Your task to perform on an android device: Set the phone to "Do not disturb". Image 0: 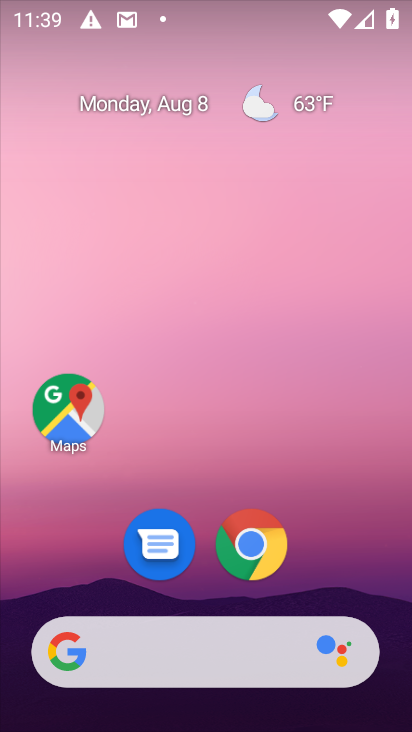
Step 0: drag from (177, 648) to (237, 124)
Your task to perform on an android device: Set the phone to "Do not disturb". Image 1: 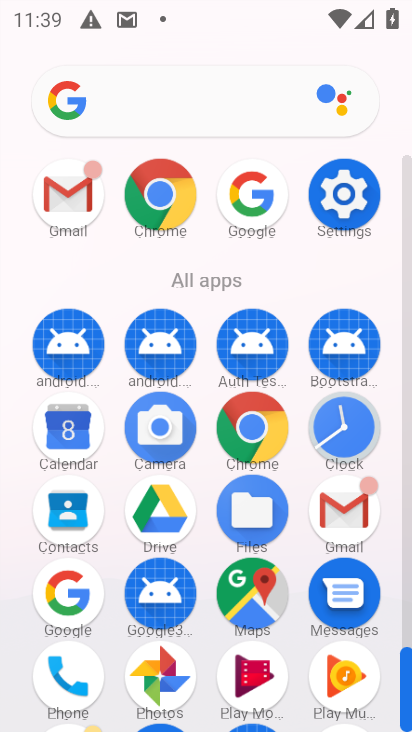
Step 1: click (344, 195)
Your task to perform on an android device: Set the phone to "Do not disturb". Image 2: 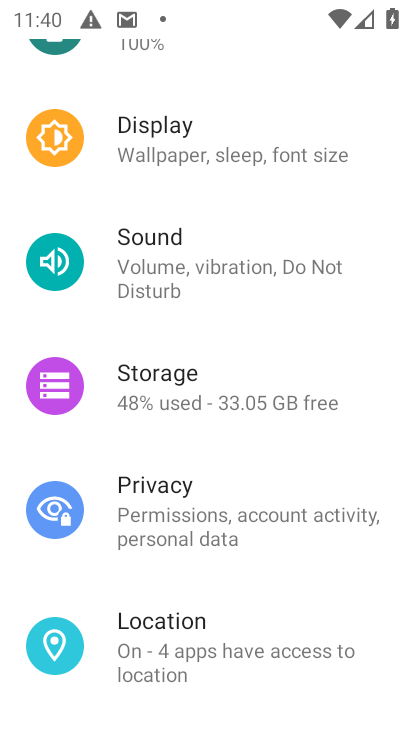
Step 2: click (252, 259)
Your task to perform on an android device: Set the phone to "Do not disturb". Image 3: 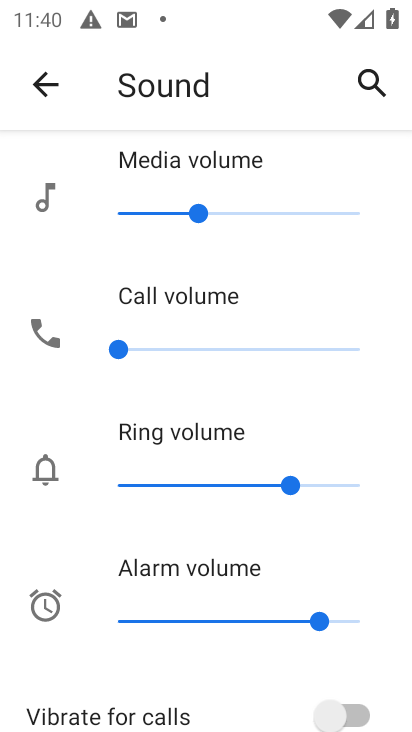
Step 3: drag from (212, 514) to (304, 348)
Your task to perform on an android device: Set the phone to "Do not disturb". Image 4: 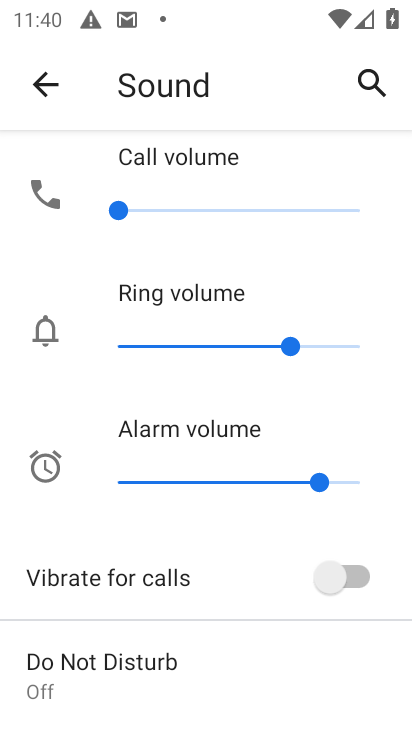
Step 4: click (167, 664)
Your task to perform on an android device: Set the phone to "Do not disturb". Image 5: 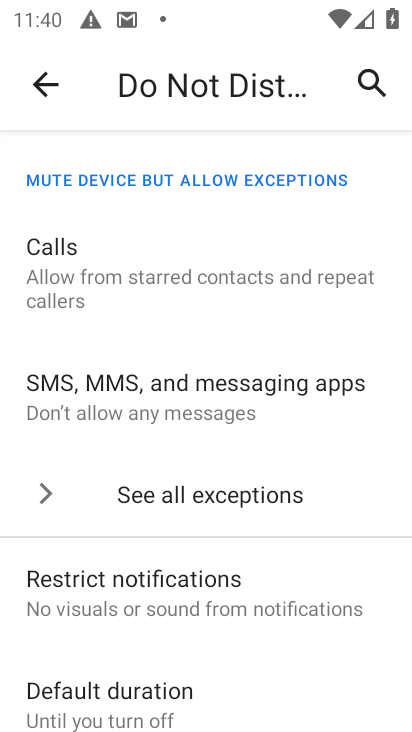
Step 5: drag from (227, 623) to (320, 481)
Your task to perform on an android device: Set the phone to "Do not disturb". Image 6: 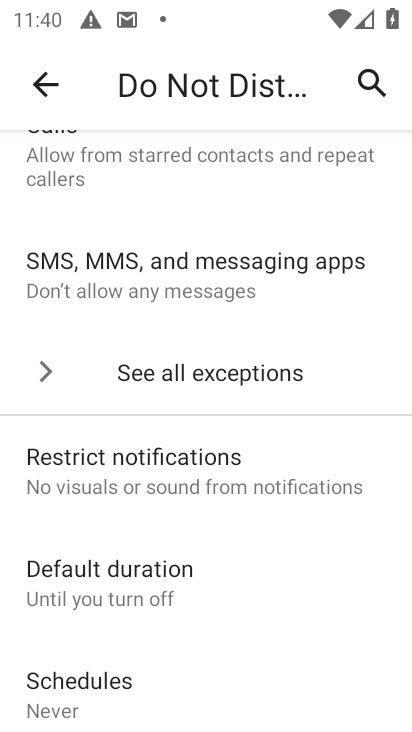
Step 6: drag from (236, 638) to (360, 473)
Your task to perform on an android device: Set the phone to "Do not disturb". Image 7: 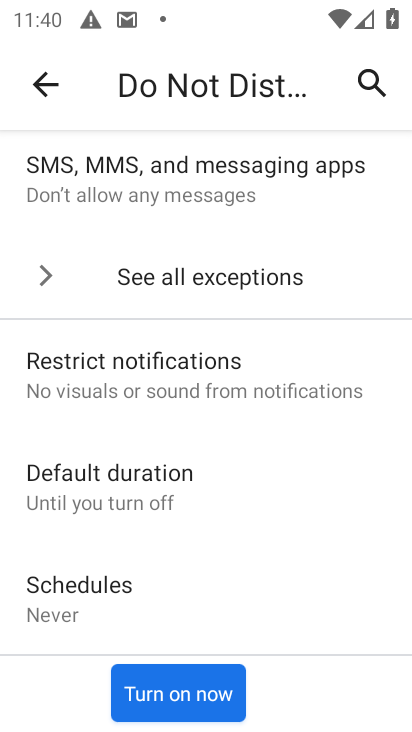
Step 7: click (182, 694)
Your task to perform on an android device: Set the phone to "Do not disturb". Image 8: 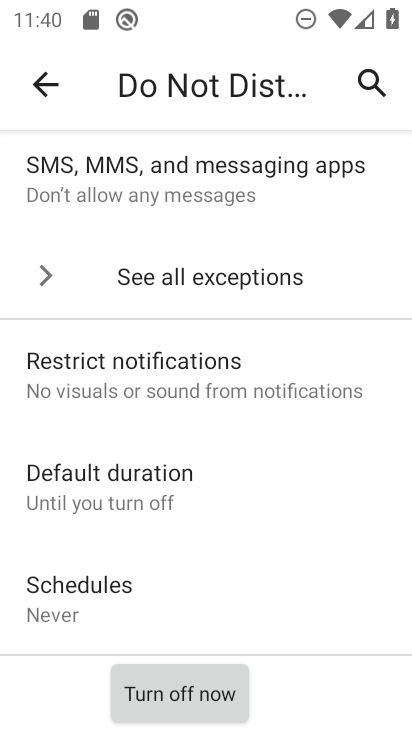
Step 8: task complete